Your task to perform on an android device: show emergency info Image 0: 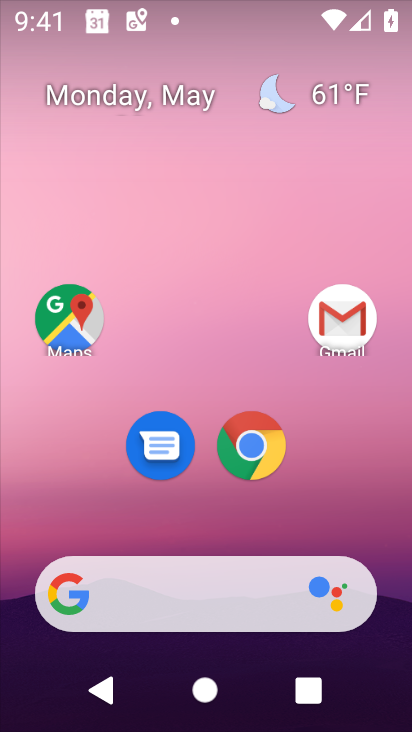
Step 0: drag from (365, 504) to (358, 122)
Your task to perform on an android device: show emergency info Image 1: 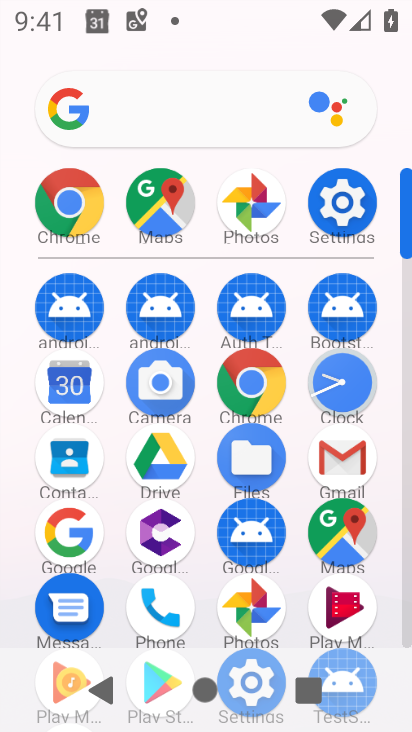
Step 1: click (366, 227)
Your task to perform on an android device: show emergency info Image 2: 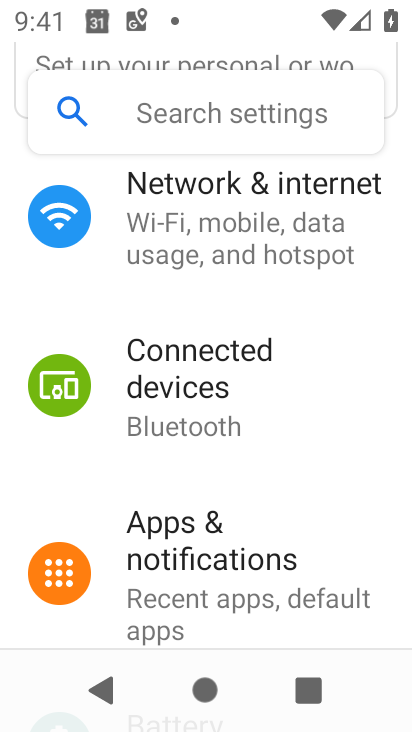
Step 2: drag from (363, 359) to (372, 188)
Your task to perform on an android device: show emergency info Image 3: 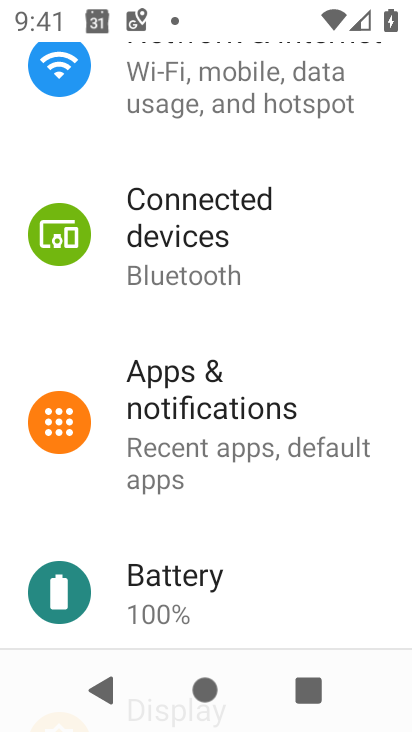
Step 3: drag from (327, 529) to (350, 298)
Your task to perform on an android device: show emergency info Image 4: 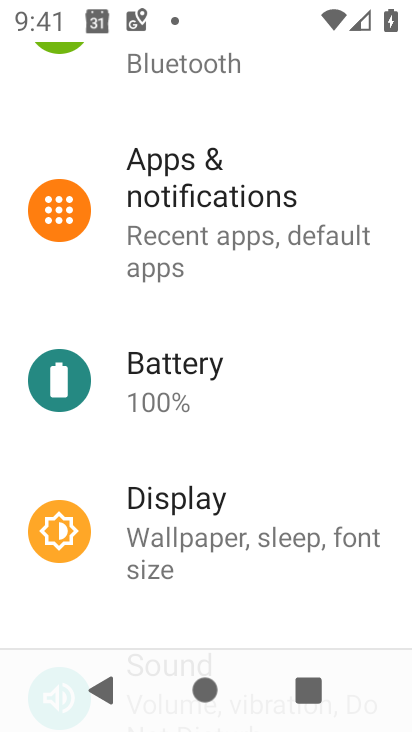
Step 4: drag from (325, 389) to (316, 242)
Your task to perform on an android device: show emergency info Image 5: 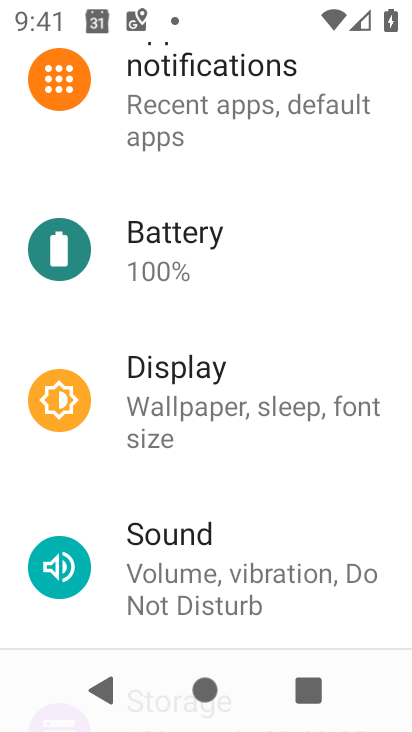
Step 5: drag from (271, 443) to (274, 275)
Your task to perform on an android device: show emergency info Image 6: 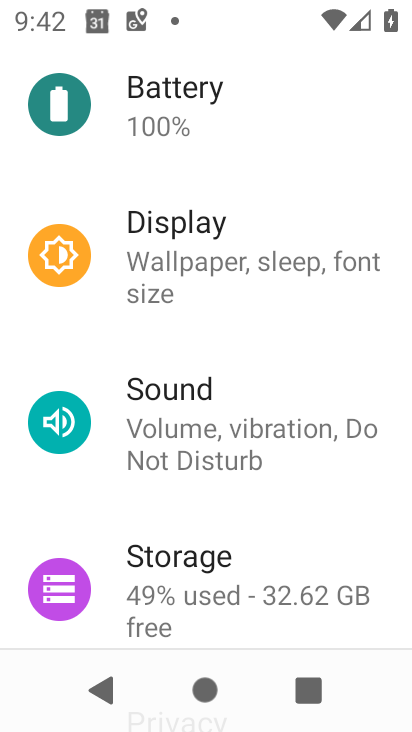
Step 6: drag from (271, 326) to (259, 208)
Your task to perform on an android device: show emergency info Image 7: 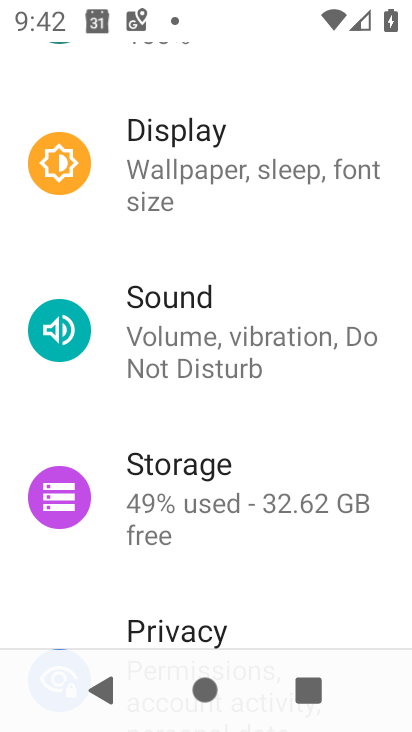
Step 7: drag from (246, 285) to (250, 200)
Your task to perform on an android device: show emergency info Image 8: 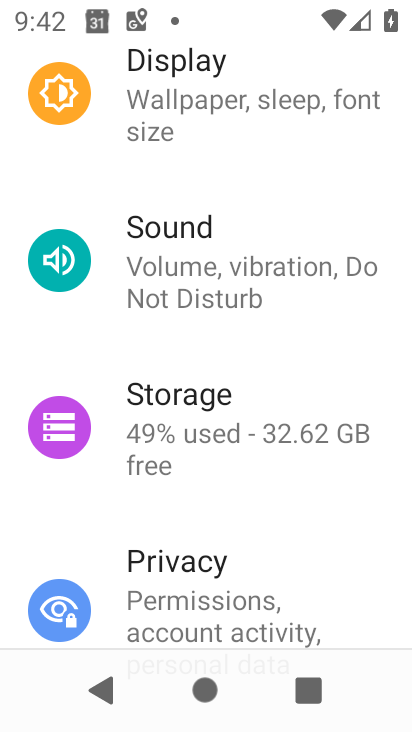
Step 8: drag from (331, 528) to (332, 298)
Your task to perform on an android device: show emergency info Image 9: 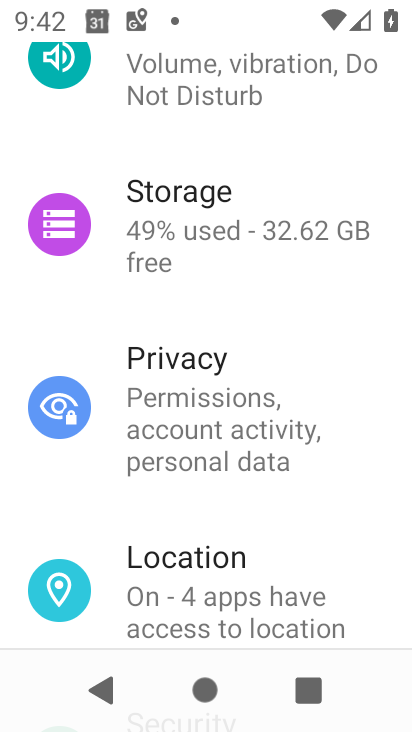
Step 9: drag from (328, 531) to (338, 243)
Your task to perform on an android device: show emergency info Image 10: 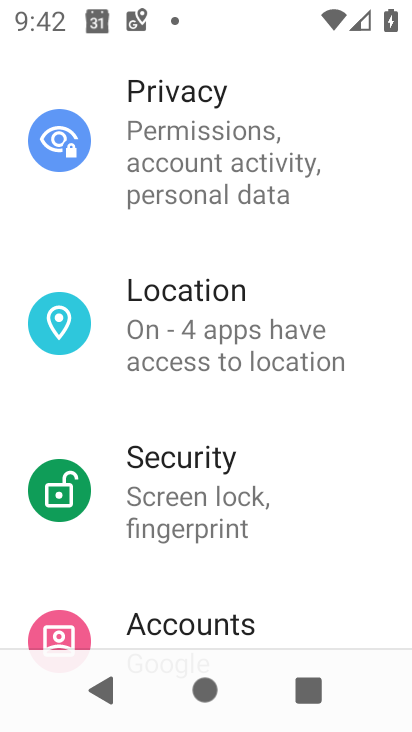
Step 10: drag from (331, 525) to (333, 309)
Your task to perform on an android device: show emergency info Image 11: 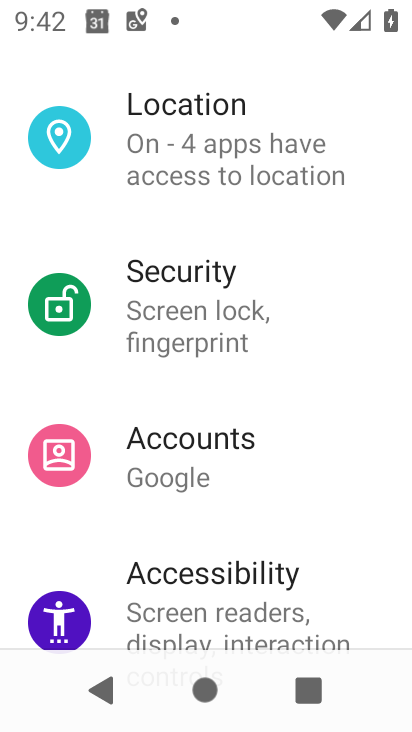
Step 11: drag from (337, 546) to (339, 269)
Your task to perform on an android device: show emergency info Image 12: 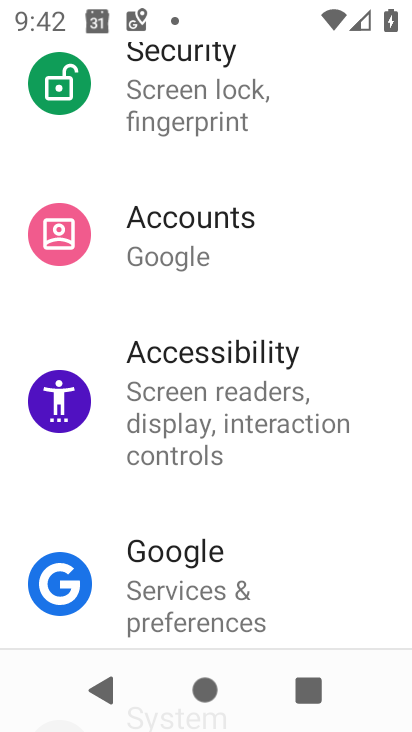
Step 12: drag from (350, 549) to (351, 291)
Your task to perform on an android device: show emergency info Image 13: 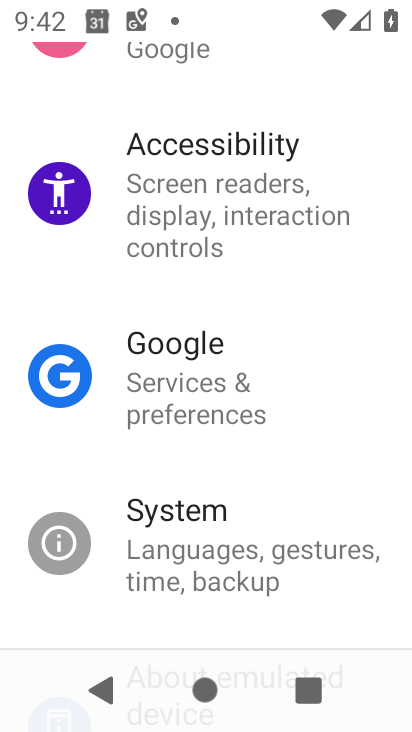
Step 13: drag from (370, 591) to (367, 375)
Your task to perform on an android device: show emergency info Image 14: 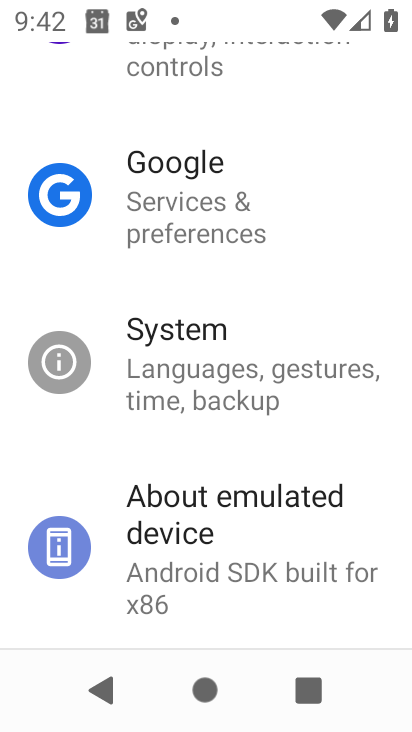
Step 14: click (337, 535)
Your task to perform on an android device: show emergency info Image 15: 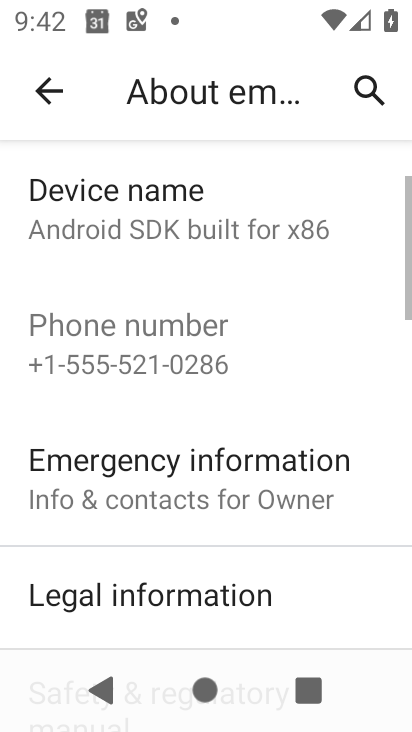
Step 15: drag from (337, 575) to (327, 386)
Your task to perform on an android device: show emergency info Image 16: 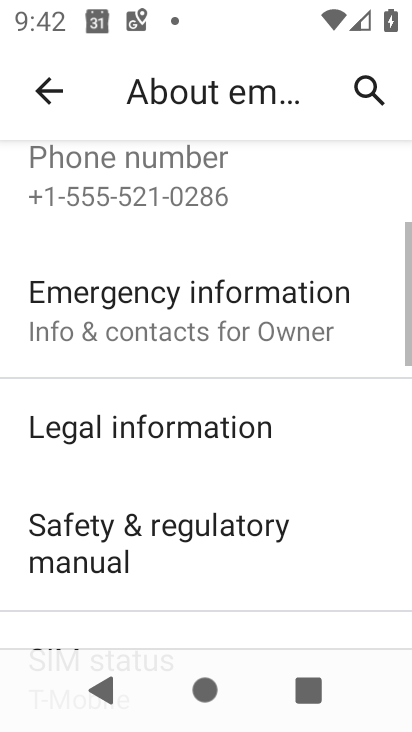
Step 16: drag from (339, 549) to (367, 263)
Your task to perform on an android device: show emergency info Image 17: 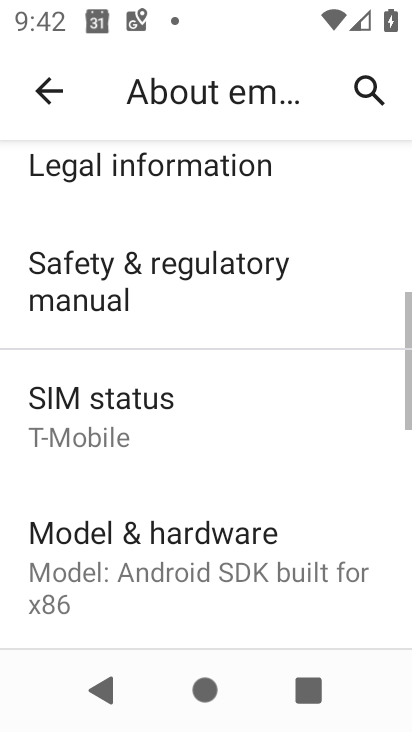
Step 17: drag from (343, 504) to (351, 332)
Your task to perform on an android device: show emergency info Image 18: 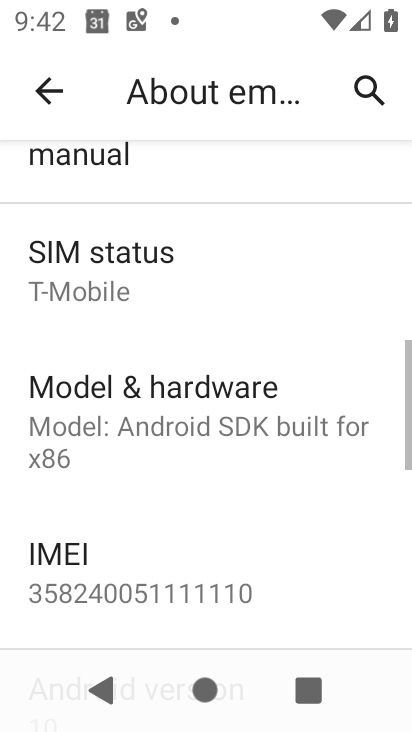
Step 18: drag from (341, 607) to (373, 364)
Your task to perform on an android device: show emergency info Image 19: 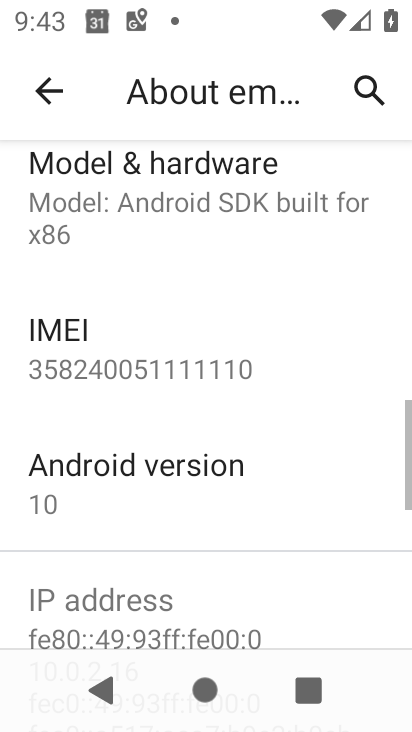
Step 19: drag from (351, 562) to (358, 308)
Your task to perform on an android device: show emergency info Image 20: 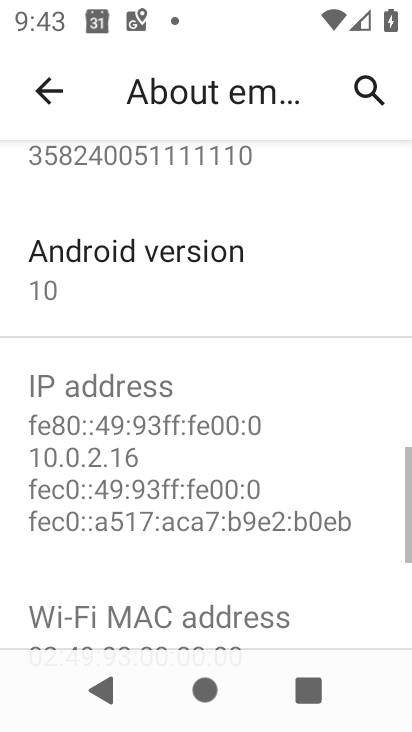
Step 20: drag from (353, 599) to (352, 309)
Your task to perform on an android device: show emergency info Image 21: 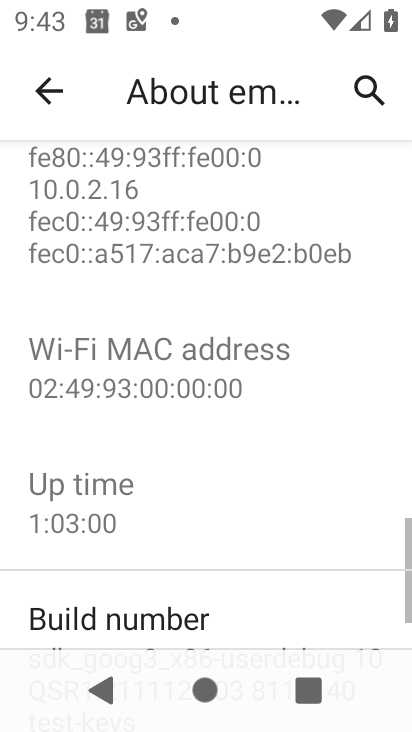
Step 21: drag from (357, 618) to (358, 360)
Your task to perform on an android device: show emergency info Image 22: 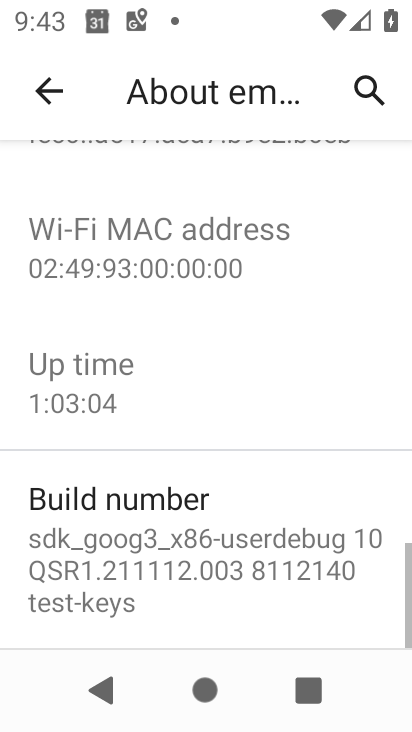
Step 22: drag from (377, 242) to (375, 389)
Your task to perform on an android device: show emergency info Image 23: 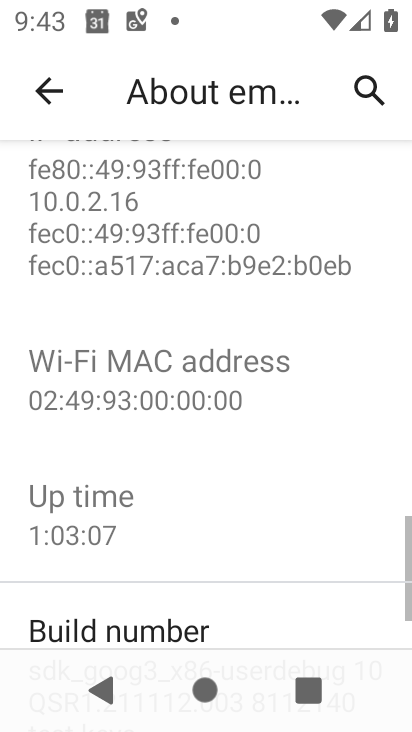
Step 23: drag from (353, 194) to (355, 344)
Your task to perform on an android device: show emergency info Image 24: 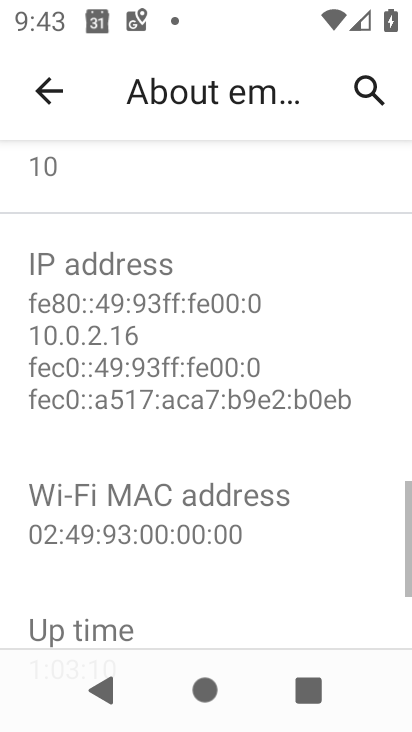
Step 24: drag from (349, 242) to (355, 374)
Your task to perform on an android device: show emergency info Image 25: 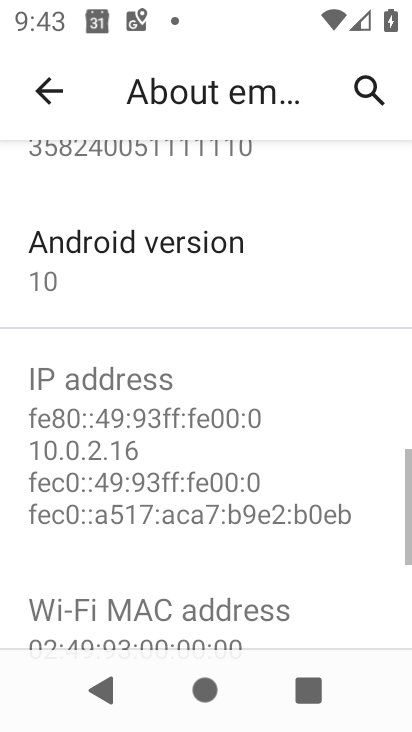
Step 25: drag from (337, 199) to (345, 336)
Your task to perform on an android device: show emergency info Image 26: 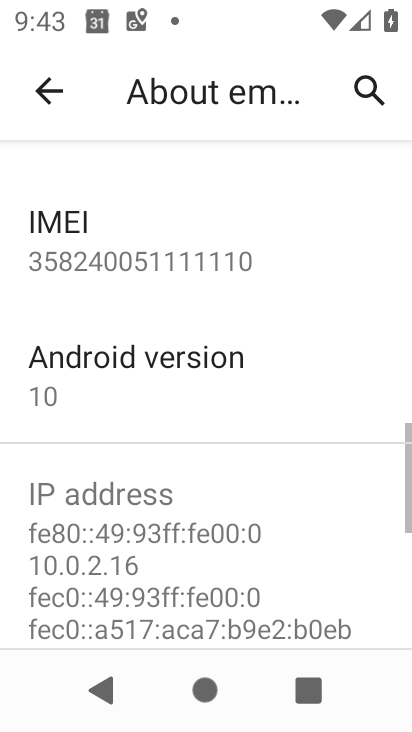
Step 26: drag from (321, 242) to (339, 455)
Your task to perform on an android device: show emergency info Image 27: 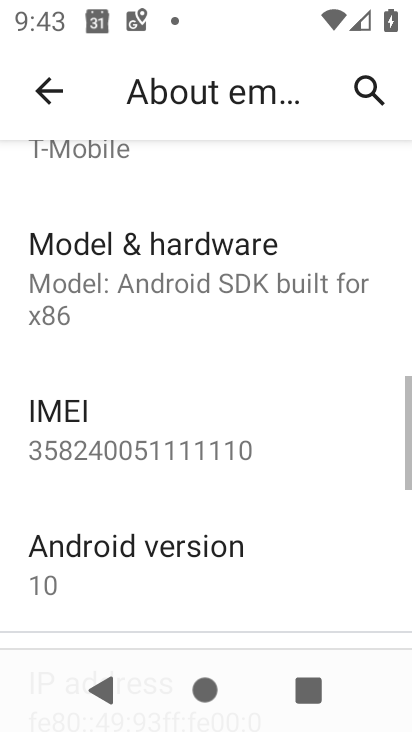
Step 27: drag from (308, 192) to (334, 440)
Your task to perform on an android device: show emergency info Image 28: 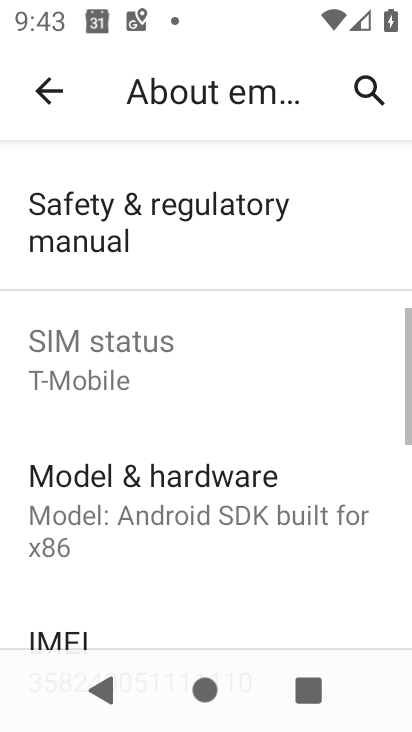
Step 28: drag from (328, 181) to (356, 427)
Your task to perform on an android device: show emergency info Image 29: 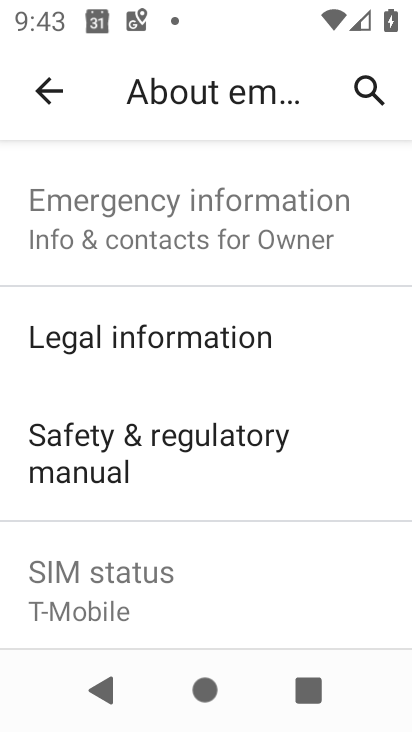
Step 29: drag from (336, 197) to (347, 419)
Your task to perform on an android device: show emergency info Image 30: 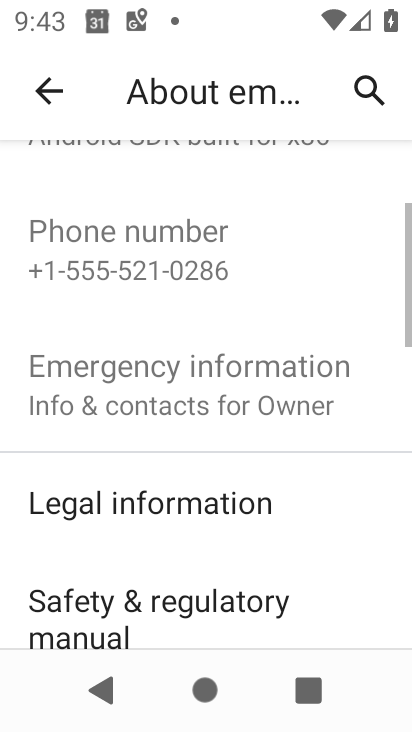
Step 30: drag from (306, 204) to (317, 378)
Your task to perform on an android device: show emergency info Image 31: 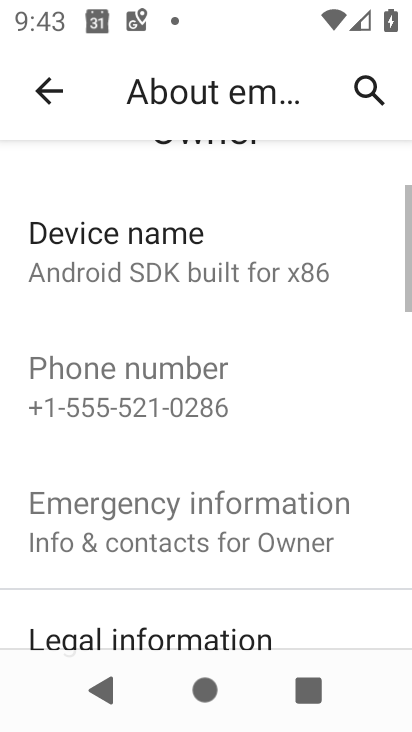
Step 31: click (252, 530)
Your task to perform on an android device: show emergency info Image 32: 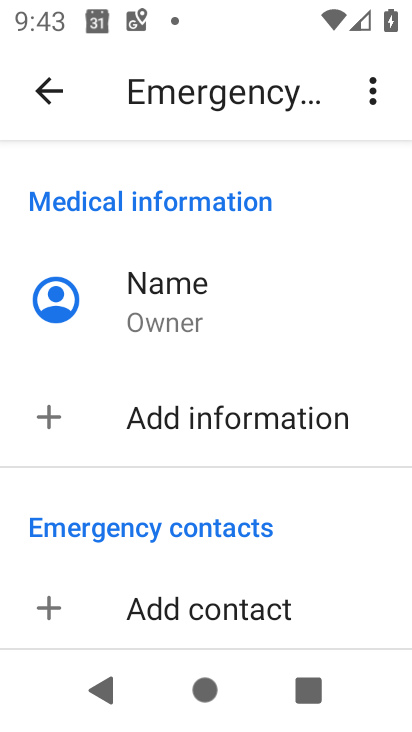
Step 32: task complete